Your task to perform on an android device: open chrome and create a bookmark for the current page Image 0: 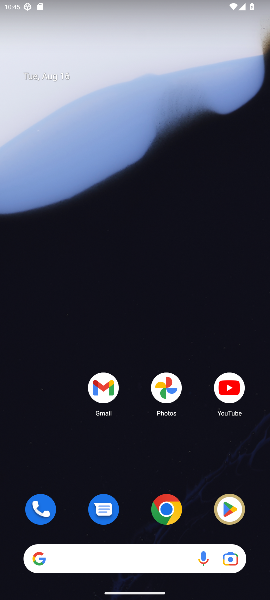
Step 0: drag from (125, 443) to (171, 19)
Your task to perform on an android device: open chrome and create a bookmark for the current page Image 1: 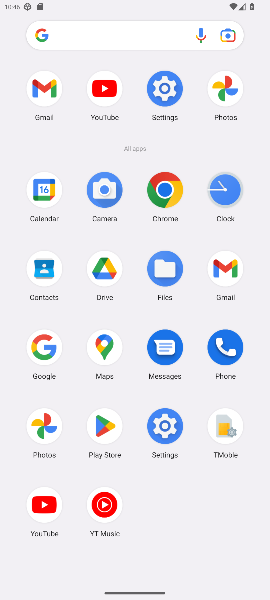
Step 1: click (172, 185)
Your task to perform on an android device: open chrome and create a bookmark for the current page Image 2: 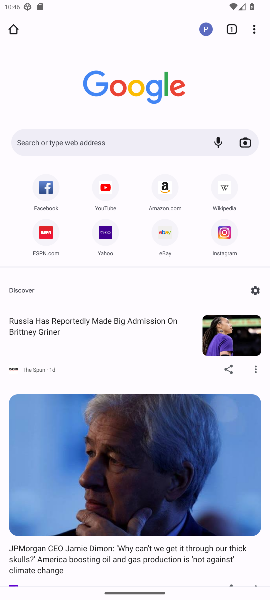
Step 2: task complete